Your task to perform on an android device: set the timer Image 0: 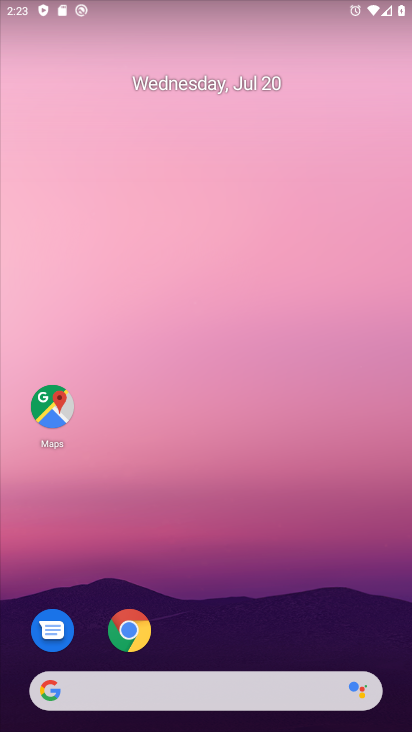
Step 0: type ""
Your task to perform on an android device: set the timer Image 1: 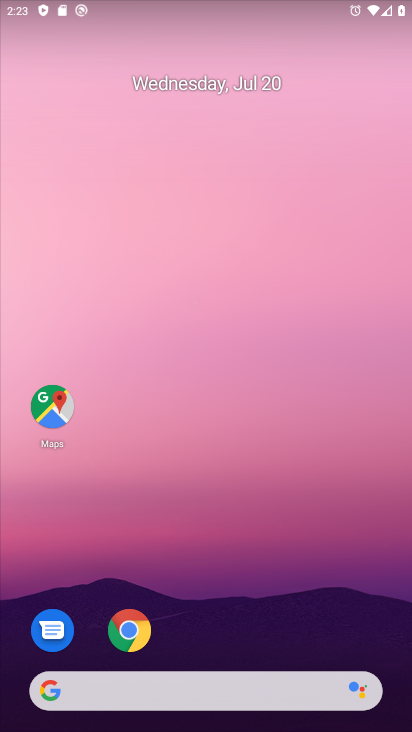
Step 1: drag from (36, 630) to (394, 43)
Your task to perform on an android device: set the timer Image 2: 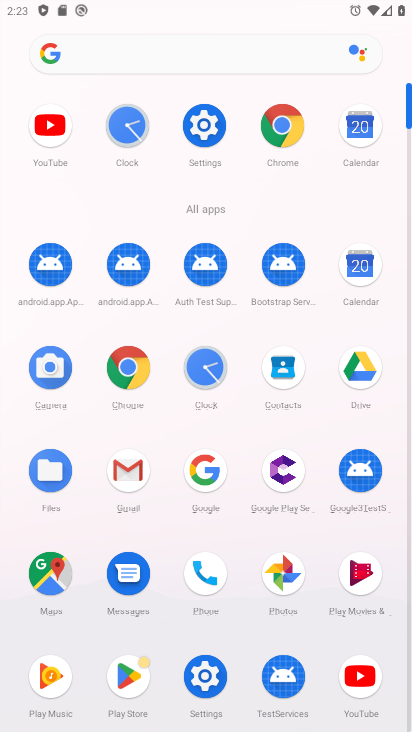
Step 2: click (133, 125)
Your task to perform on an android device: set the timer Image 3: 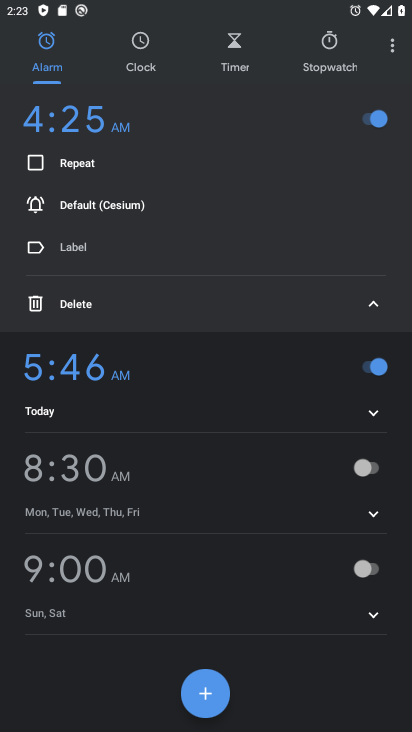
Step 3: click (229, 39)
Your task to perform on an android device: set the timer Image 4: 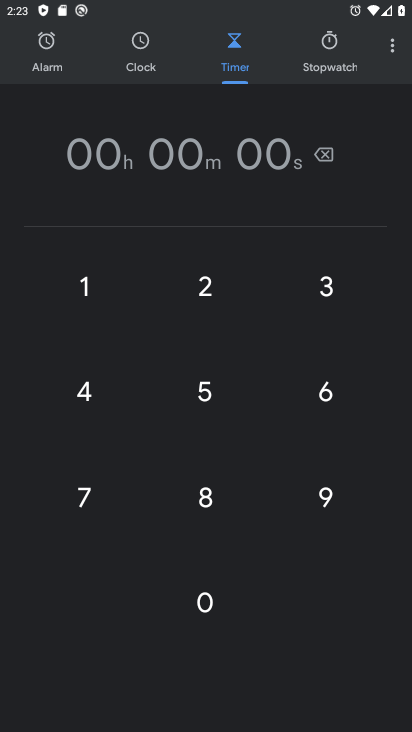
Step 4: click (84, 298)
Your task to perform on an android device: set the timer Image 5: 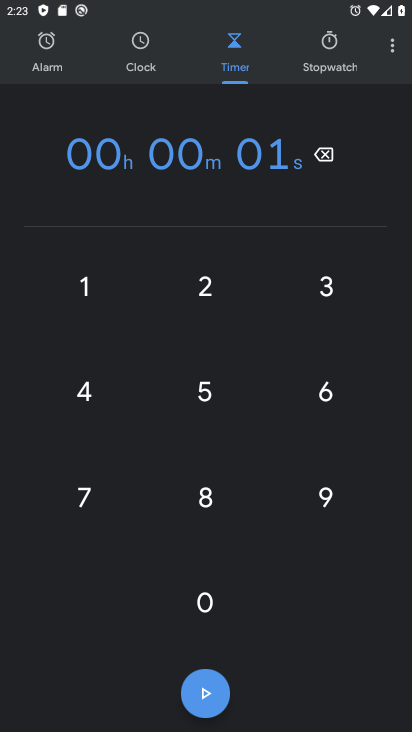
Step 5: click (208, 613)
Your task to perform on an android device: set the timer Image 6: 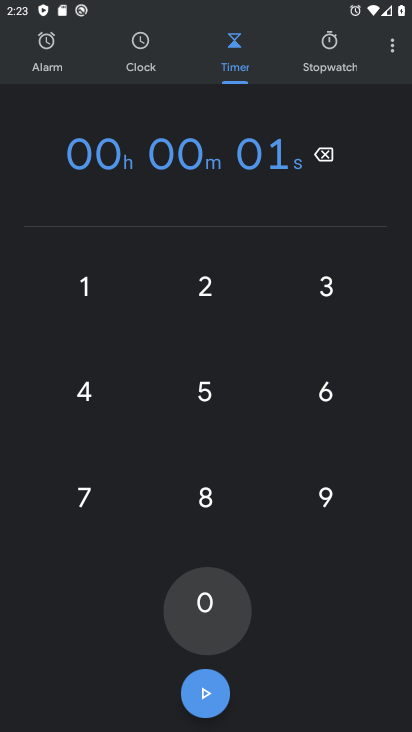
Step 6: click (209, 612)
Your task to perform on an android device: set the timer Image 7: 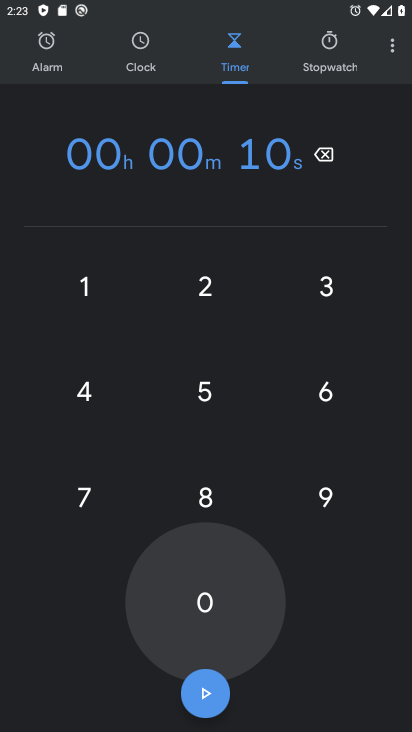
Step 7: click (209, 612)
Your task to perform on an android device: set the timer Image 8: 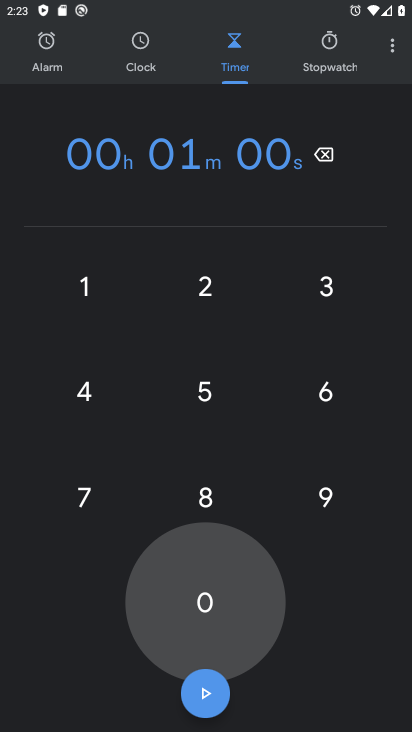
Step 8: click (209, 612)
Your task to perform on an android device: set the timer Image 9: 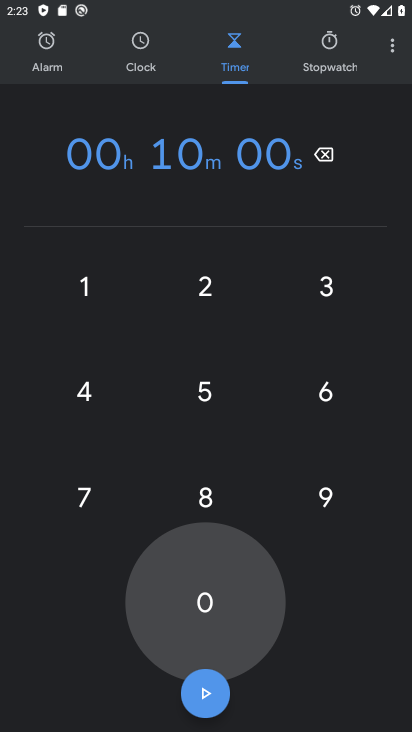
Step 9: click (209, 612)
Your task to perform on an android device: set the timer Image 10: 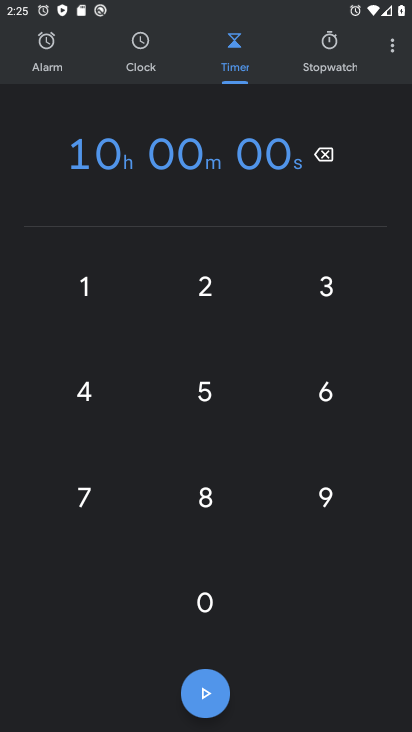
Step 10: task complete